Your task to perform on an android device: Open Yahoo.com Image 0: 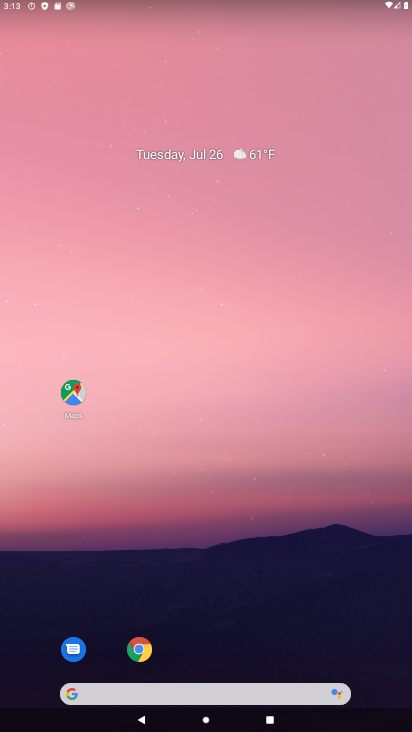
Step 0: click (85, 691)
Your task to perform on an android device: Open Yahoo.com Image 1: 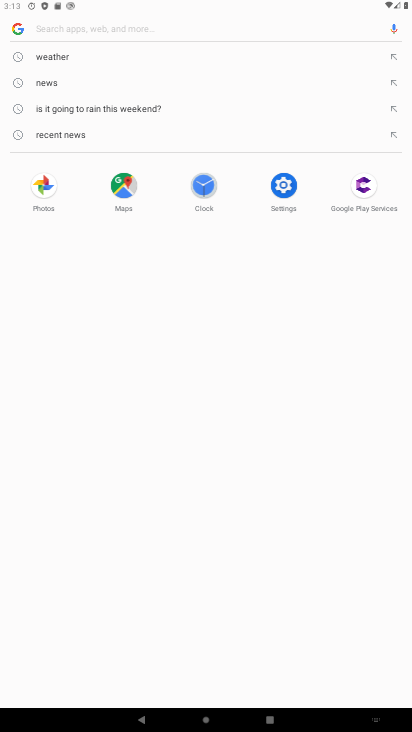
Step 1: type "Yahoo.com"
Your task to perform on an android device: Open Yahoo.com Image 2: 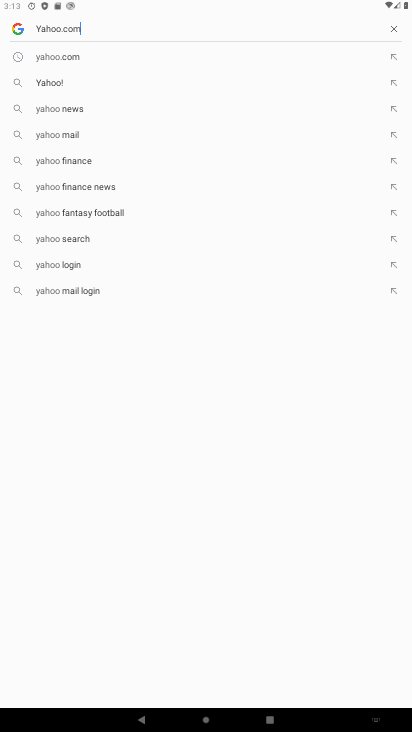
Step 2: type ""
Your task to perform on an android device: Open Yahoo.com Image 3: 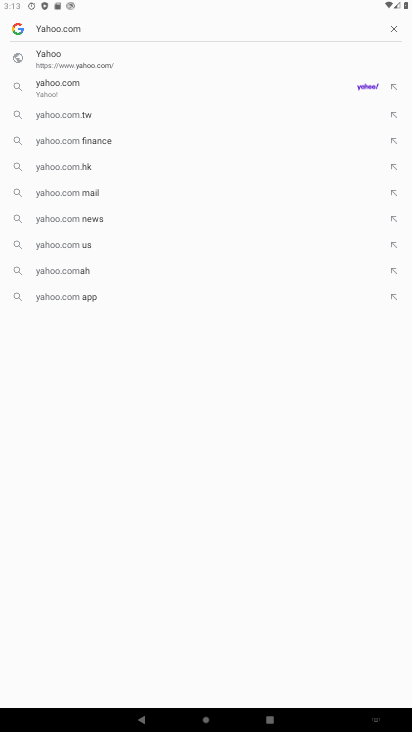
Step 3: click (61, 87)
Your task to perform on an android device: Open Yahoo.com Image 4: 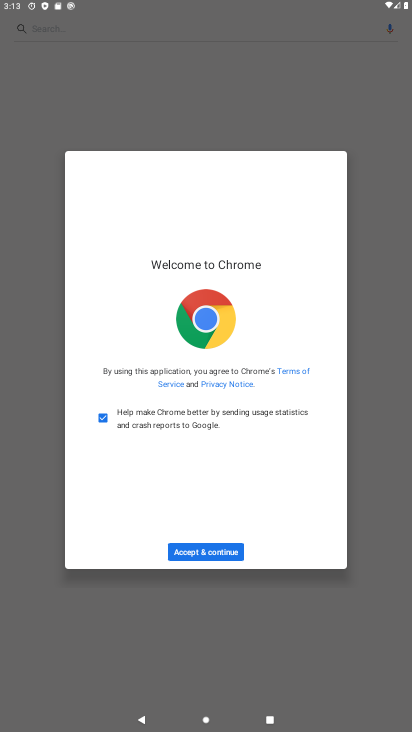
Step 4: click (202, 551)
Your task to perform on an android device: Open Yahoo.com Image 5: 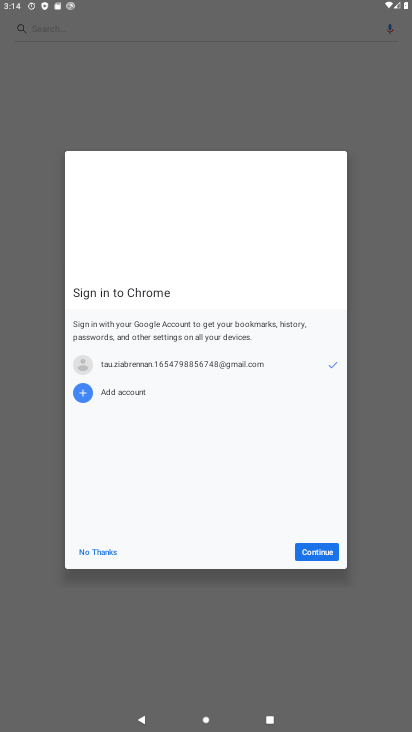
Step 5: click (301, 545)
Your task to perform on an android device: Open Yahoo.com Image 6: 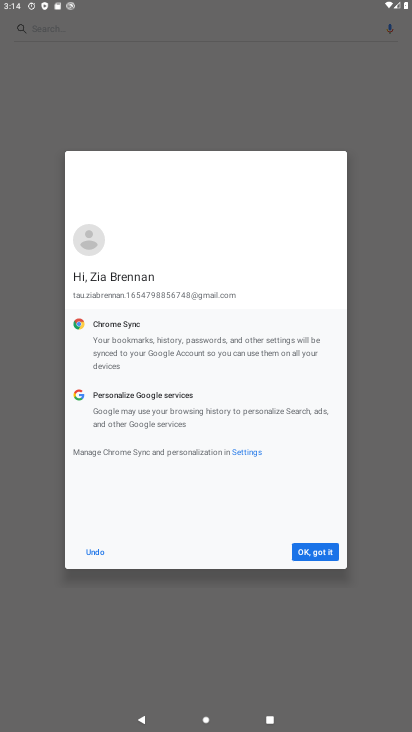
Step 6: click (301, 556)
Your task to perform on an android device: Open Yahoo.com Image 7: 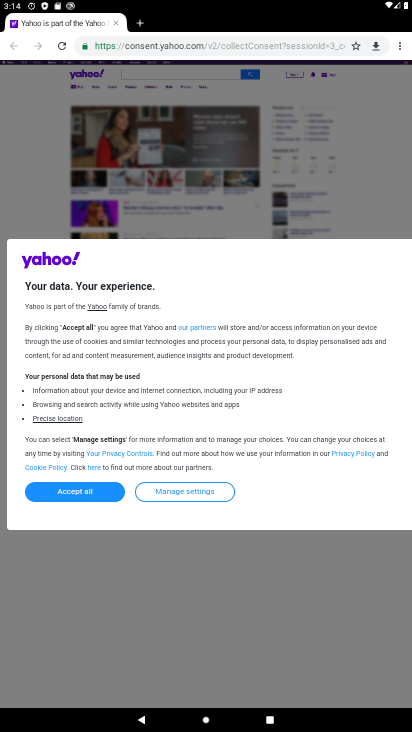
Step 7: task complete